Your task to perform on an android device: Search for Italian restaurants on Maps Image 0: 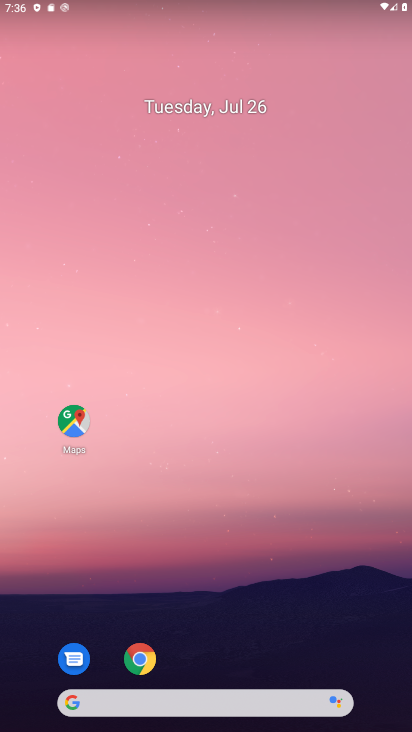
Step 0: drag from (182, 686) to (54, 327)
Your task to perform on an android device: Search for Italian restaurants on Maps Image 1: 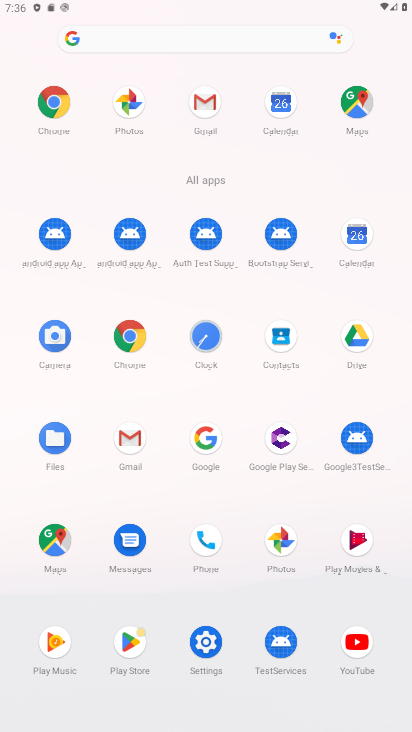
Step 1: click (55, 555)
Your task to perform on an android device: Search for Italian restaurants on Maps Image 2: 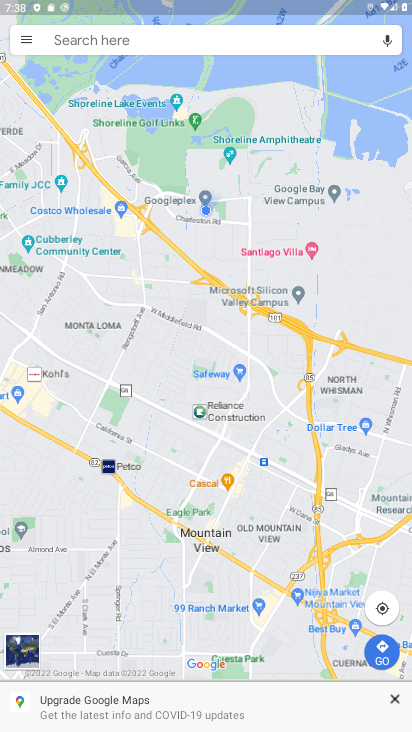
Step 2: click (109, 43)
Your task to perform on an android device: Search for Italian restaurants on Maps Image 3: 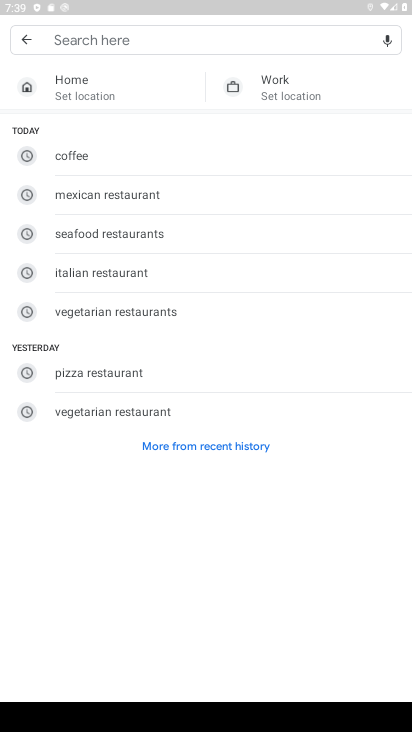
Step 3: click (64, 263)
Your task to perform on an android device: Search for Italian restaurants on Maps Image 4: 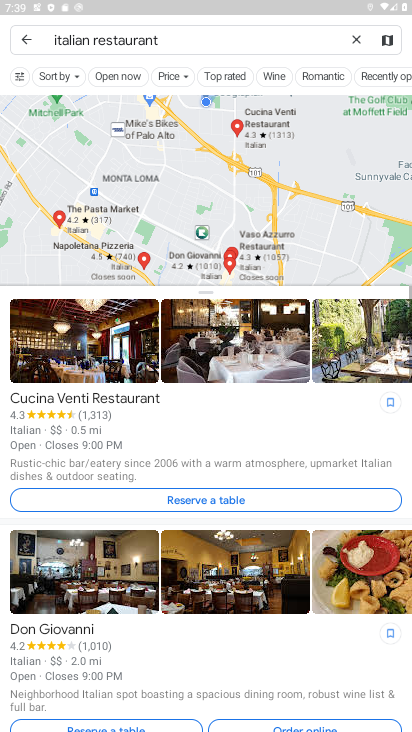
Step 4: task complete